Your task to perform on an android device: set the stopwatch Image 0: 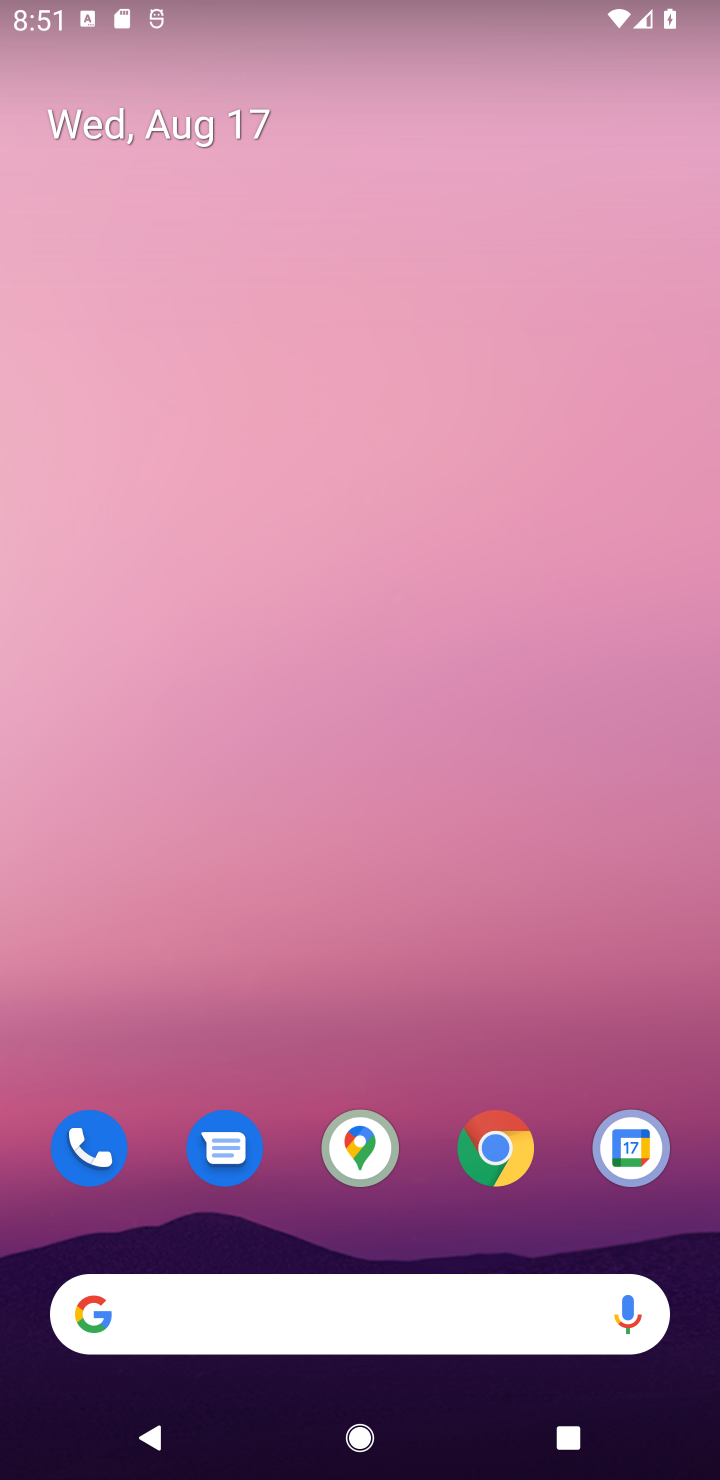
Step 0: drag from (574, 1182) to (460, 152)
Your task to perform on an android device: set the stopwatch Image 1: 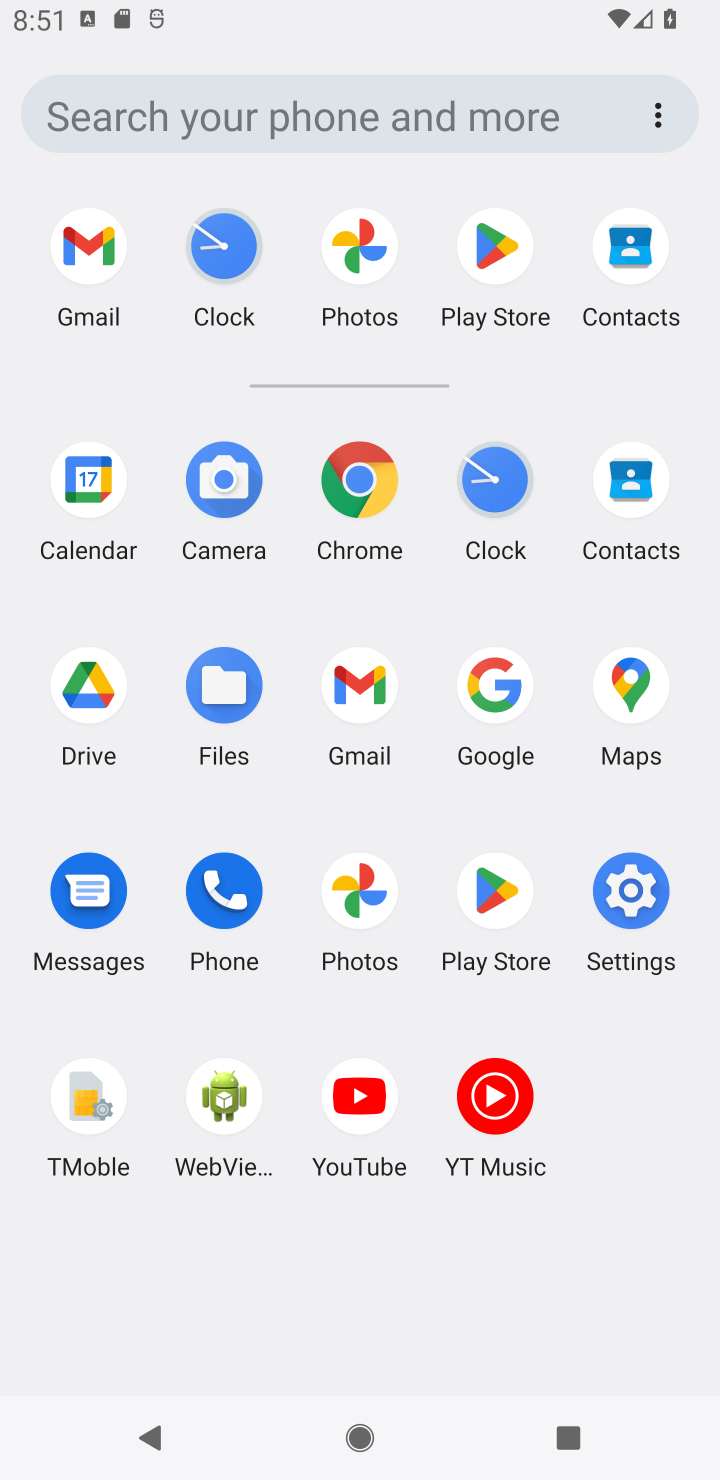
Step 1: click (493, 470)
Your task to perform on an android device: set the stopwatch Image 2: 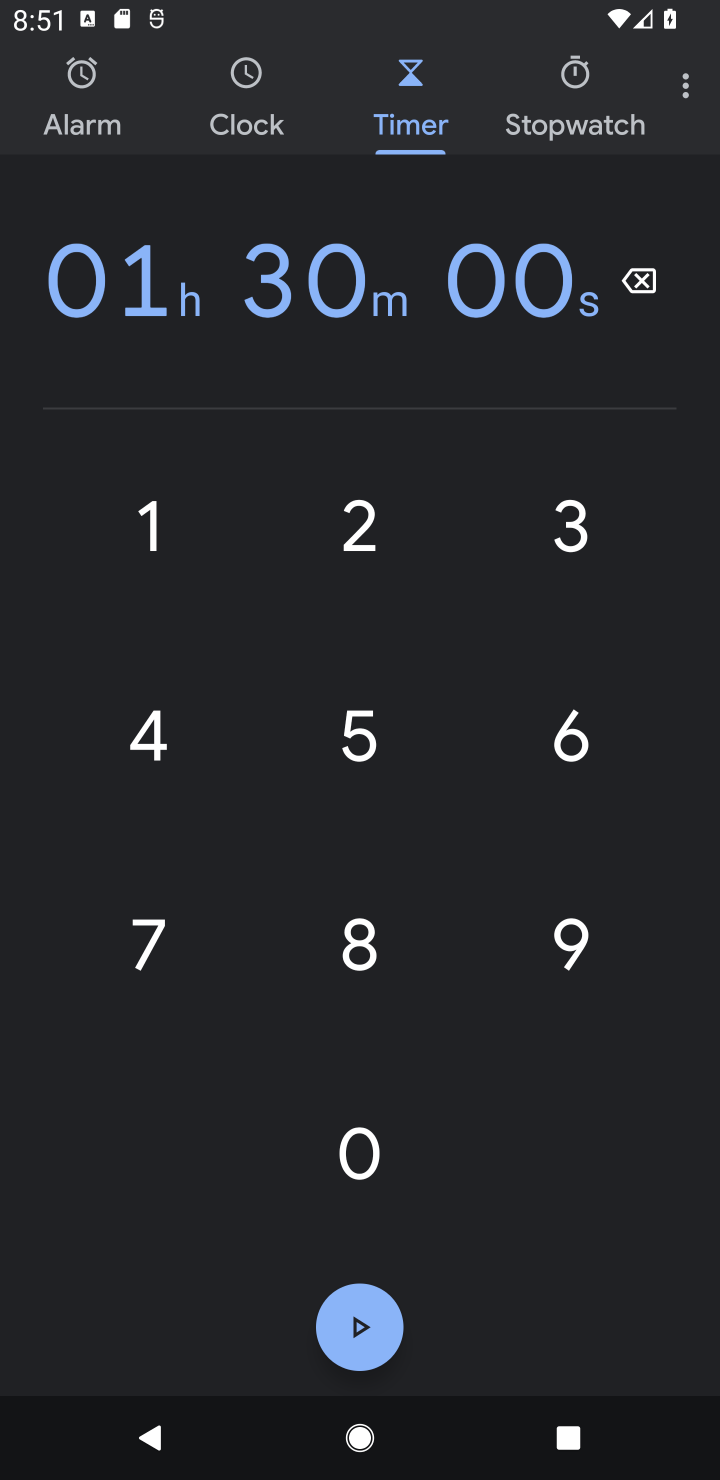
Step 2: click (579, 65)
Your task to perform on an android device: set the stopwatch Image 3: 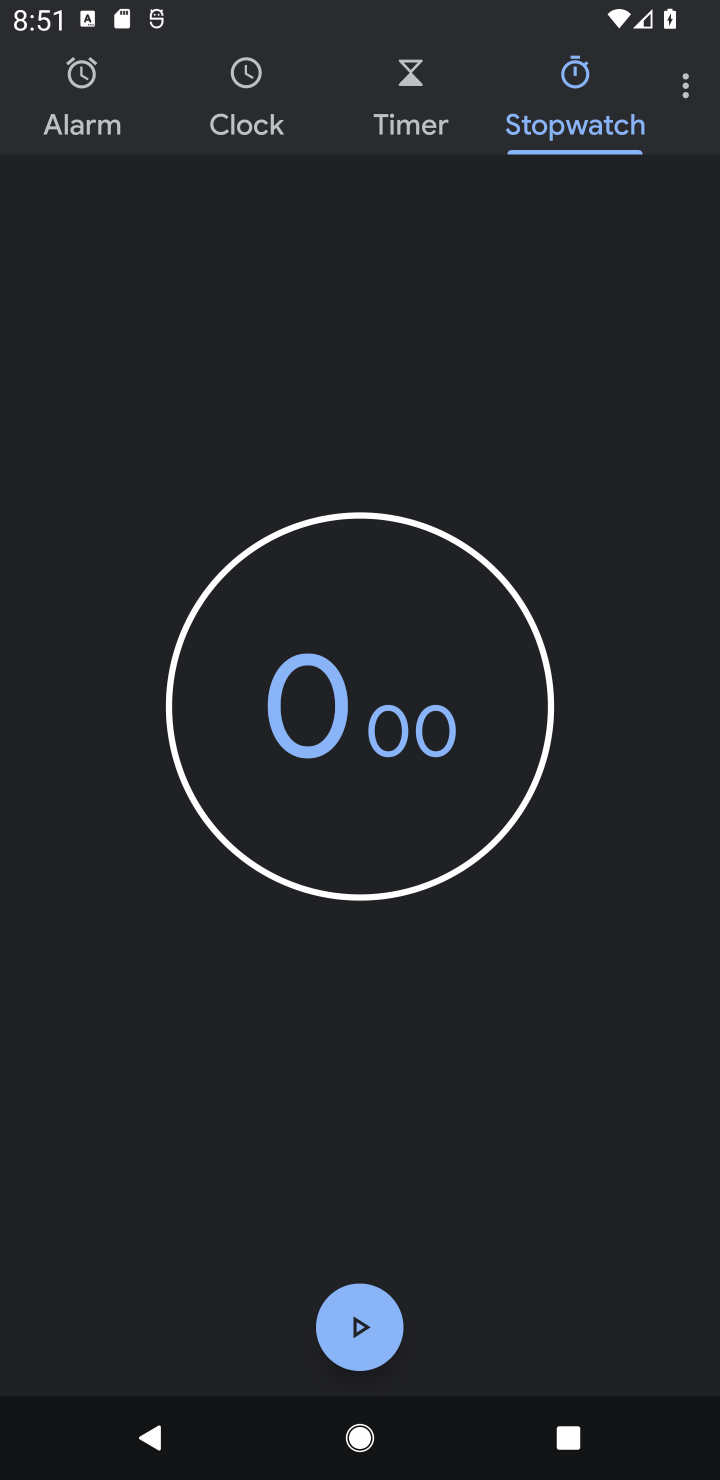
Step 3: task complete